Your task to perform on an android device: turn off location Image 0: 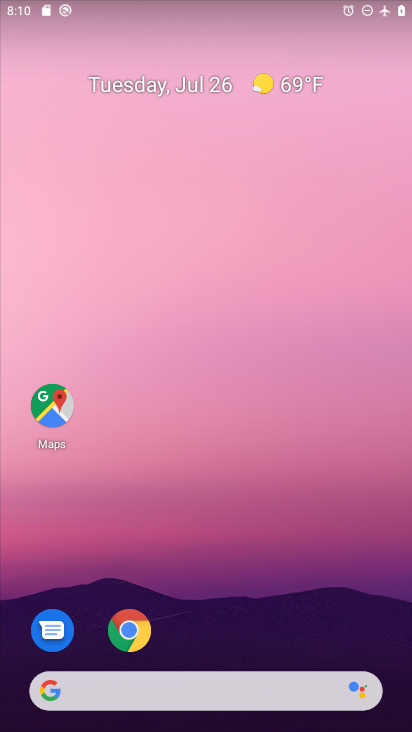
Step 0: drag from (250, 625) to (258, 176)
Your task to perform on an android device: turn off location Image 1: 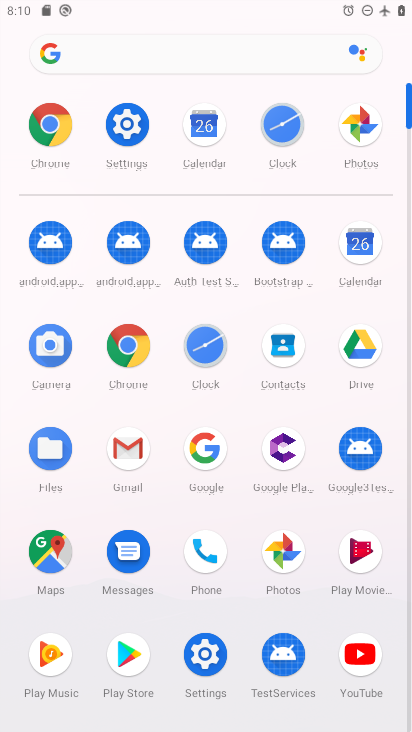
Step 1: click (215, 652)
Your task to perform on an android device: turn off location Image 2: 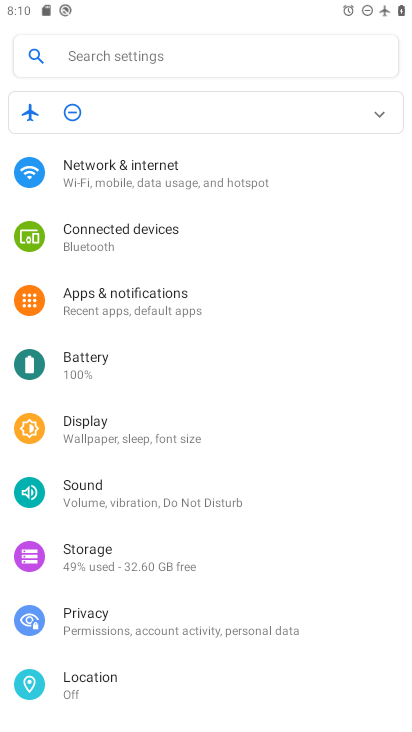
Step 2: click (113, 684)
Your task to perform on an android device: turn off location Image 3: 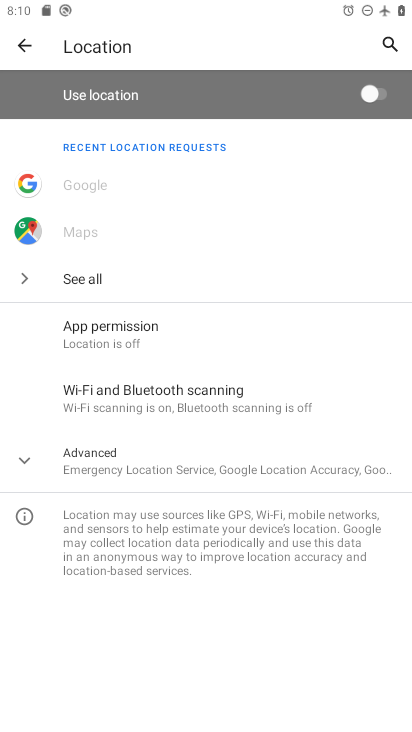
Step 3: task complete